Your task to perform on an android device: toggle wifi Image 0: 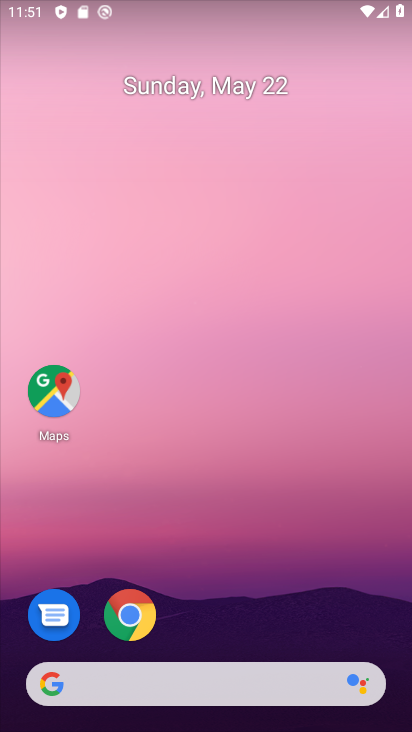
Step 0: drag from (46, 5) to (173, 483)
Your task to perform on an android device: toggle wifi Image 1: 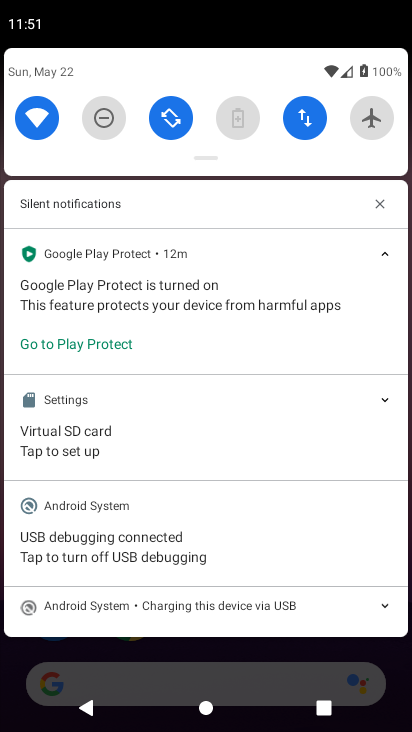
Step 1: click (34, 109)
Your task to perform on an android device: toggle wifi Image 2: 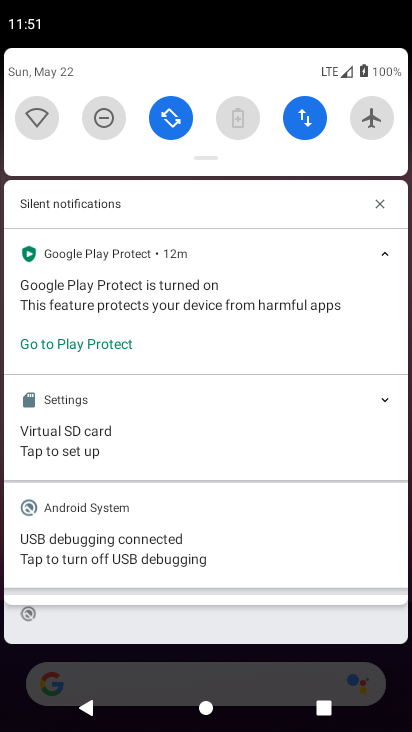
Step 2: task complete